Your task to perform on an android device: turn off data saver in the chrome app Image 0: 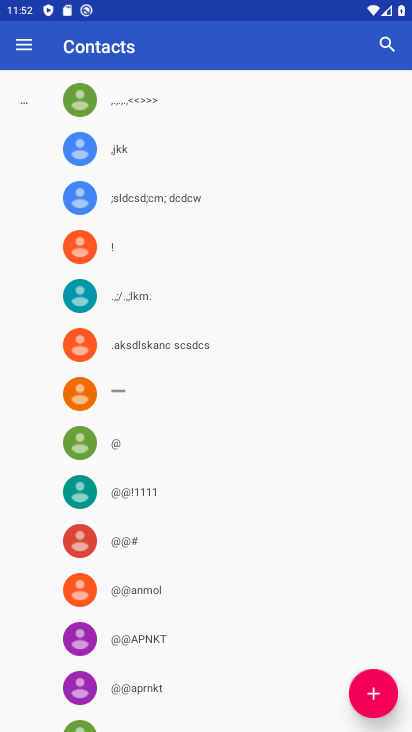
Step 0: press home button
Your task to perform on an android device: turn off data saver in the chrome app Image 1: 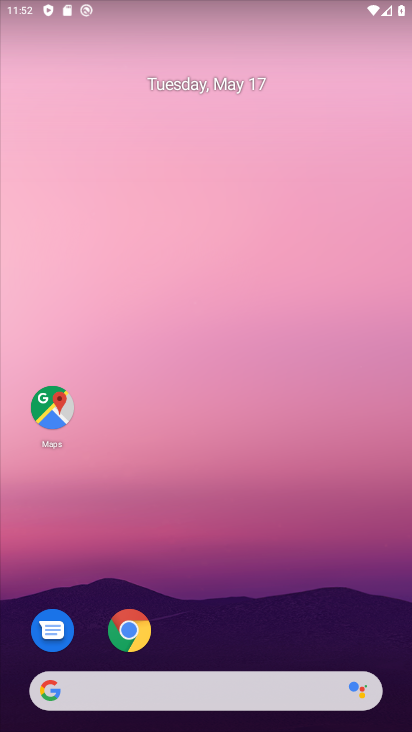
Step 1: click (130, 628)
Your task to perform on an android device: turn off data saver in the chrome app Image 2: 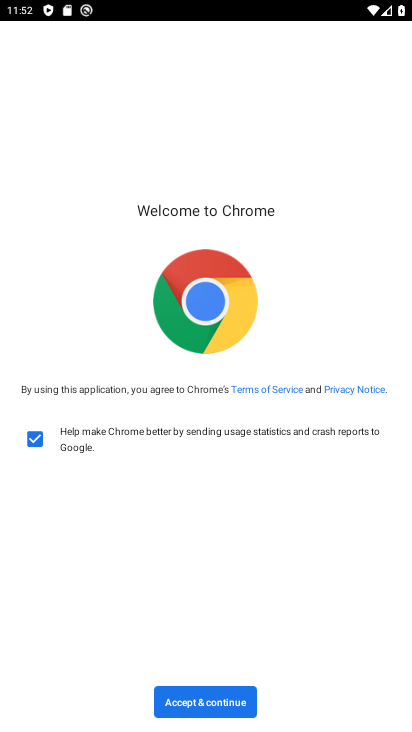
Step 2: click (203, 698)
Your task to perform on an android device: turn off data saver in the chrome app Image 3: 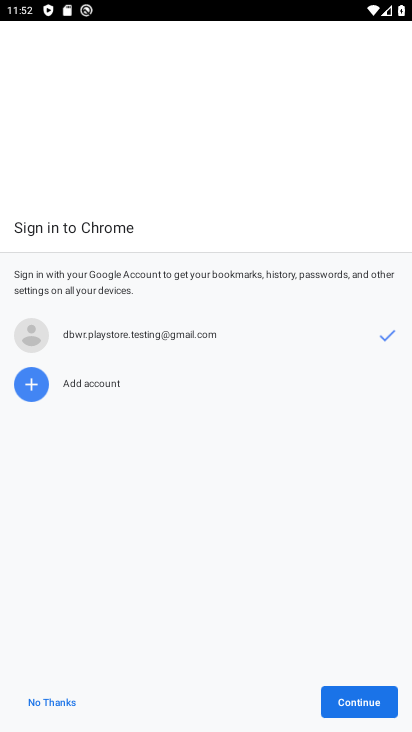
Step 3: click (351, 695)
Your task to perform on an android device: turn off data saver in the chrome app Image 4: 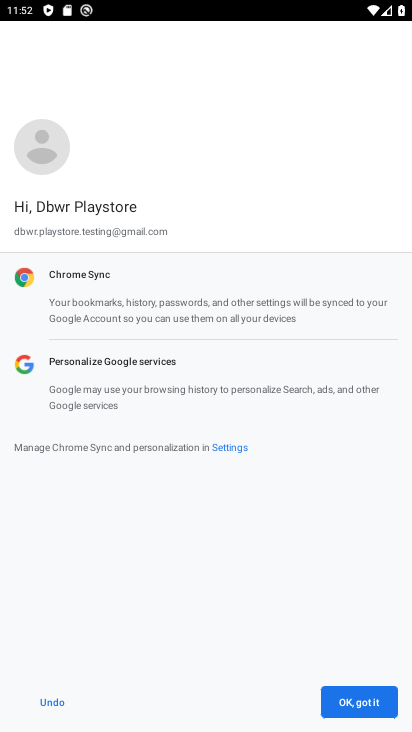
Step 4: click (352, 700)
Your task to perform on an android device: turn off data saver in the chrome app Image 5: 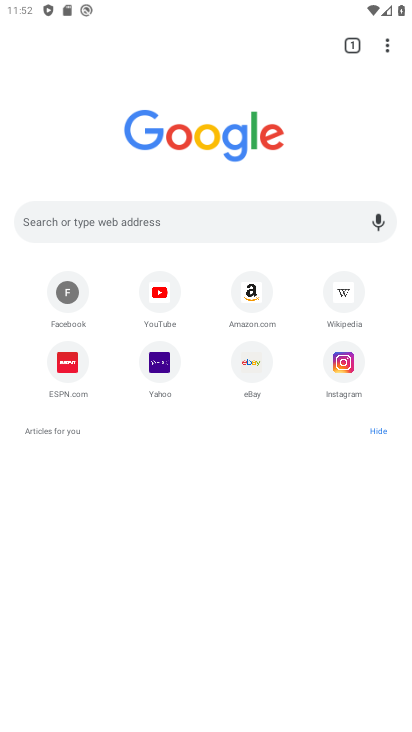
Step 5: click (387, 41)
Your task to perform on an android device: turn off data saver in the chrome app Image 6: 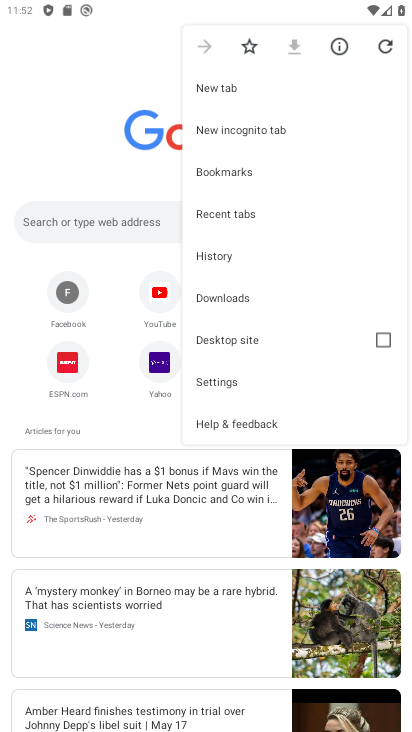
Step 6: click (214, 381)
Your task to perform on an android device: turn off data saver in the chrome app Image 7: 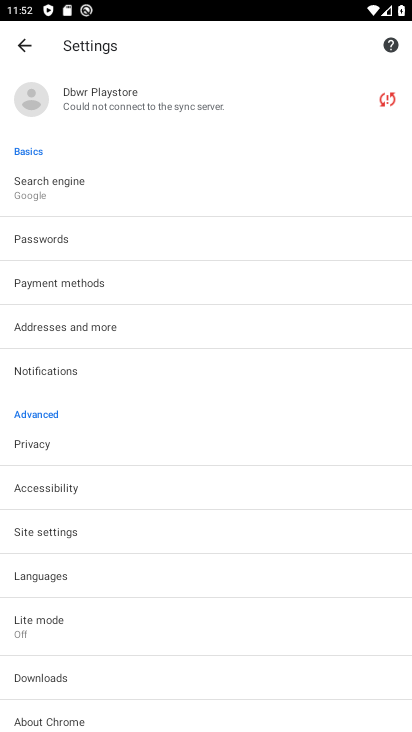
Step 7: drag from (190, 642) to (177, 270)
Your task to perform on an android device: turn off data saver in the chrome app Image 8: 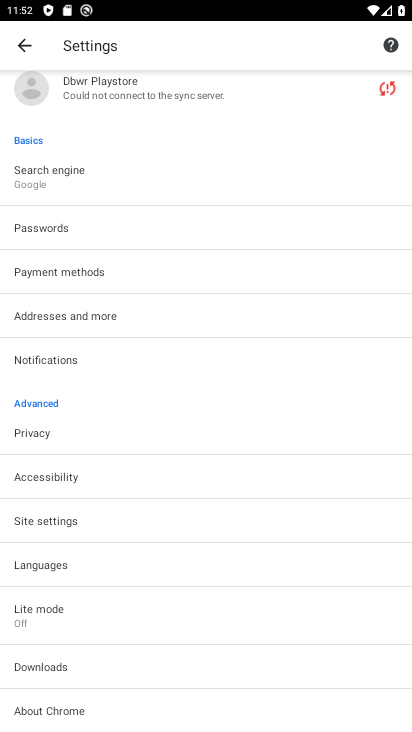
Step 8: click (101, 516)
Your task to perform on an android device: turn off data saver in the chrome app Image 9: 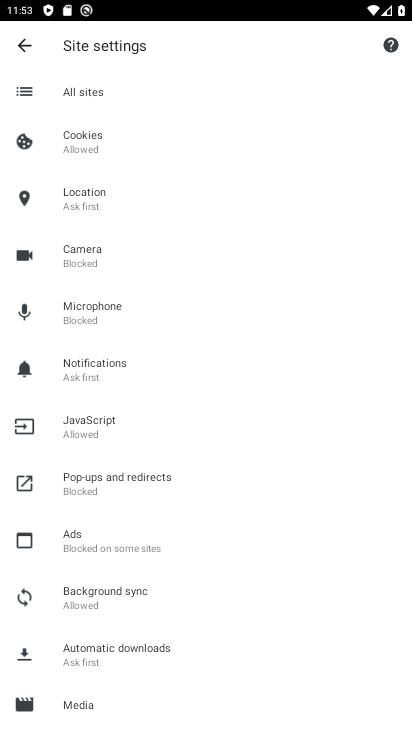
Step 9: drag from (215, 611) to (258, 100)
Your task to perform on an android device: turn off data saver in the chrome app Image 10: 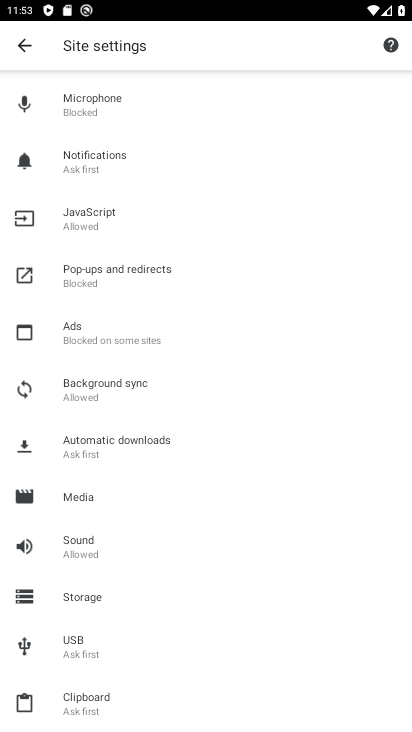
Step 10: drag from (302, 618) to (280, 112)
Your task to perform on an android device: turn off data saver in the chrome app Image 11: 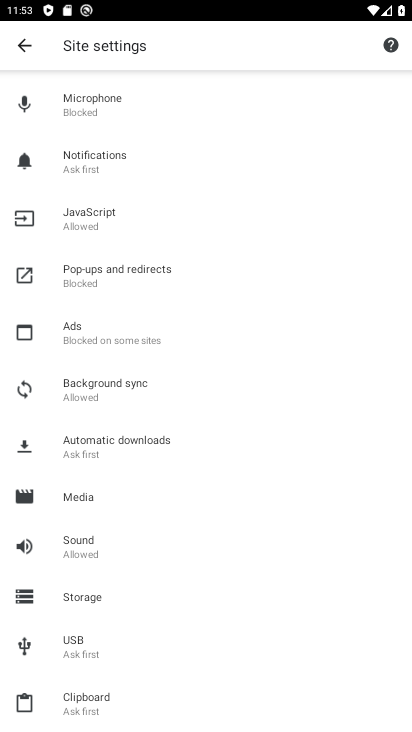
Step 11: press back button
Your task to perform on an android device: turn off data saver in the chrome app Image 12: 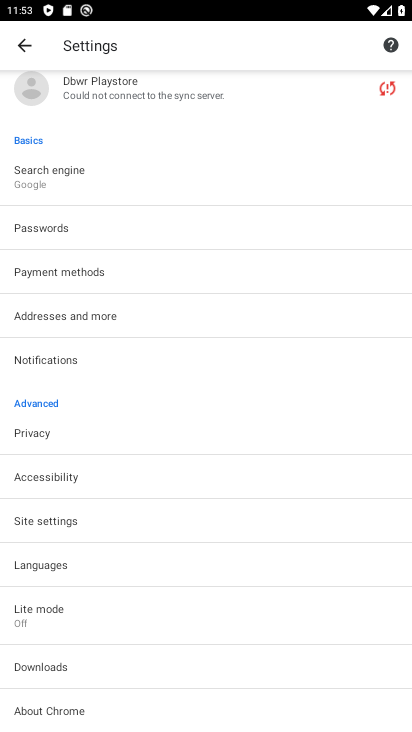
Step 12: click (125, 431)
Your task to perform on an android device: turn off data saver in the chrome app Image 13: 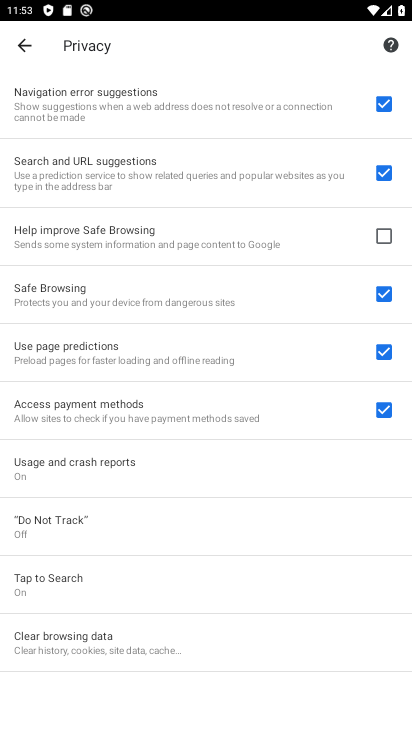
Step 13: drag from (150, 610) to (127, 178)
Your task to perform on an android device: turn off data saver in the chrome app Image 14: 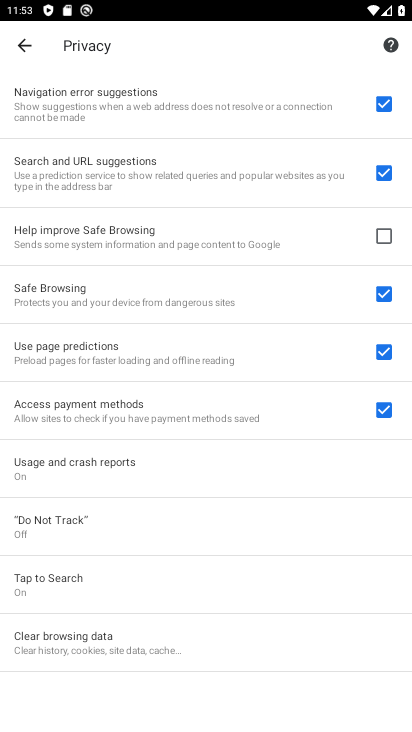
Step 14: press back button
Your task to perform on an android device: turn off data saver in the chrome app Image 15: 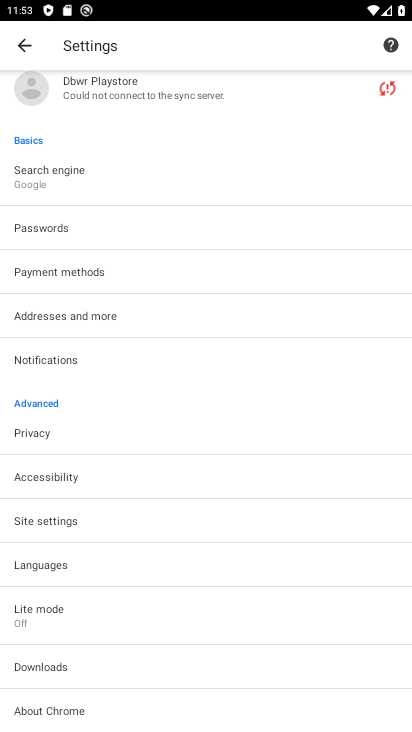
Step 15: drag from (146, 662) to (140, 258)
Your task to perform on an android device: turn off data saver in the chrome app Image 16: 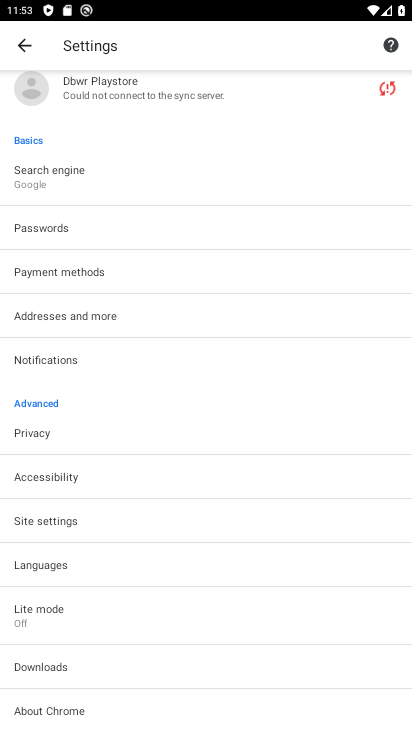
Step 16: click (173, 718)
Your task to perform on an android device: turn off data saver in the chrome app Image 17: 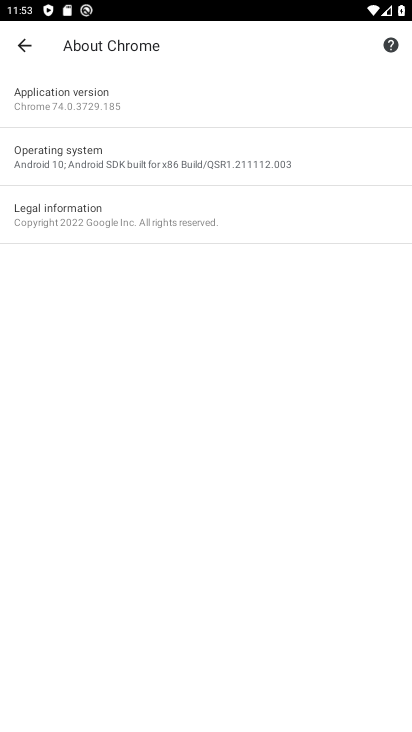
Step 17: press back button
Your task to perform on an android device: turn off data saver in the chrome app Image 18: 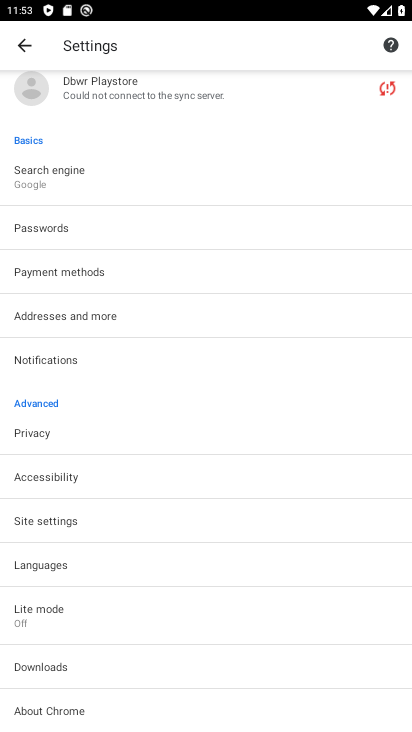
Step 18: click (129, 471)
Your task to perform on an android device: turn off data saver in the chrome app Image 19: 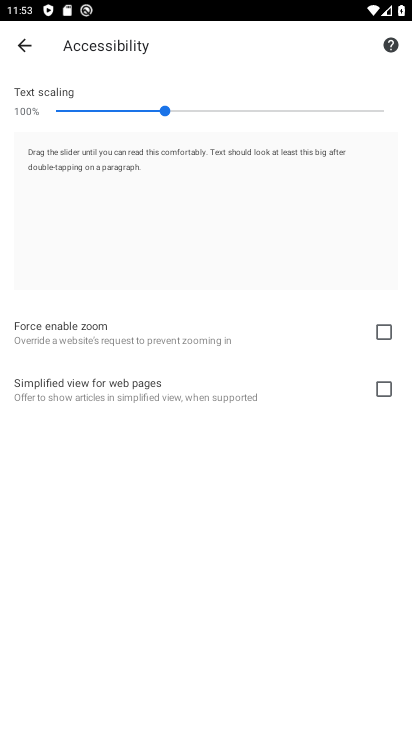
Step 19: task complete